Your task to perform on an android device: Open settings Image 0: 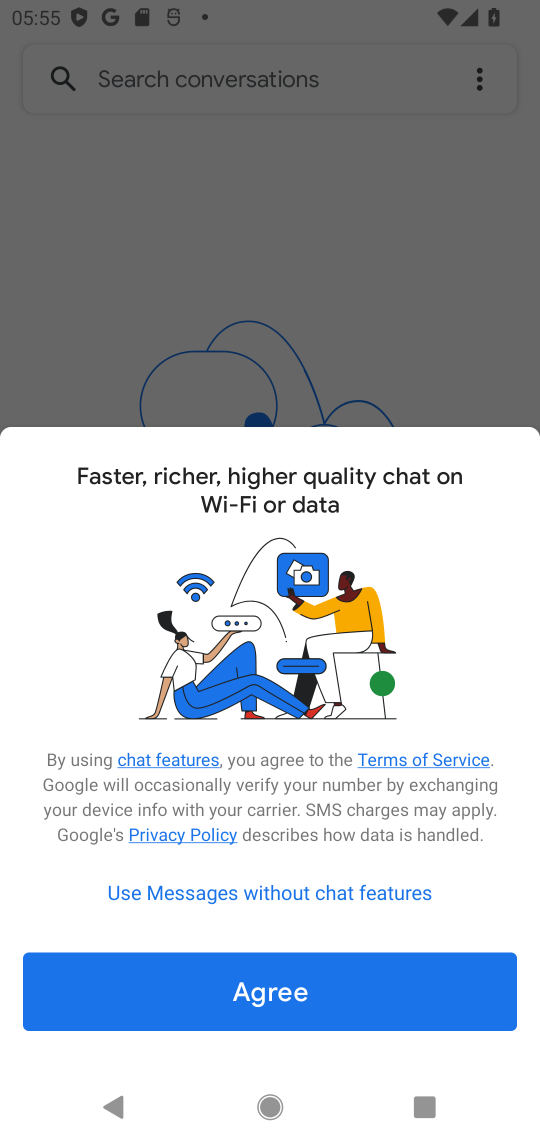
Step 0: press home button
Your task to perform on an android device: Open settings Image 1: 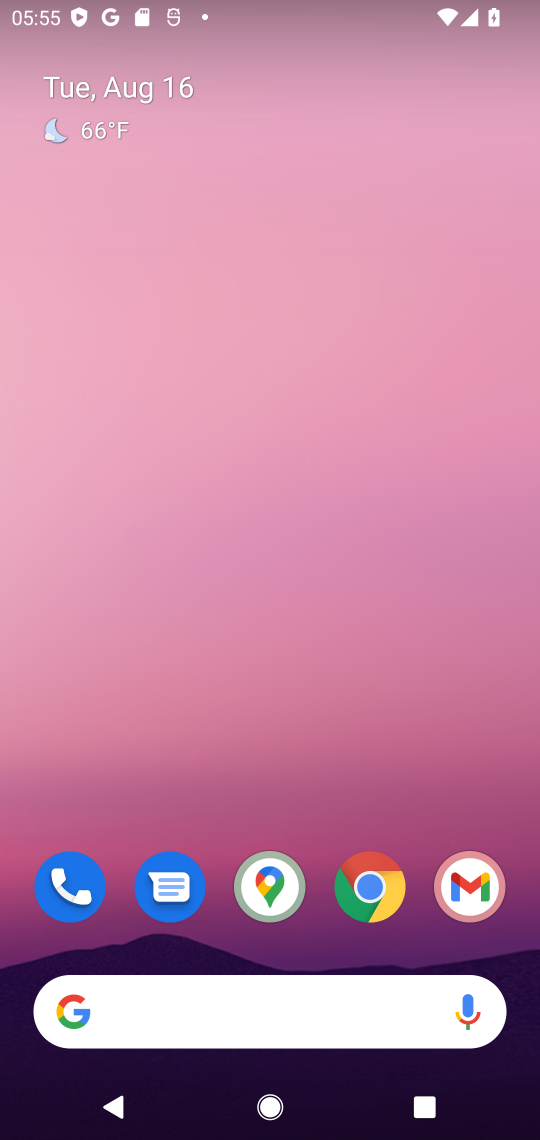
Step 1: drag from (332, 749) to (355, 9)
Your task to perform on an android device: Open settings Image 2: 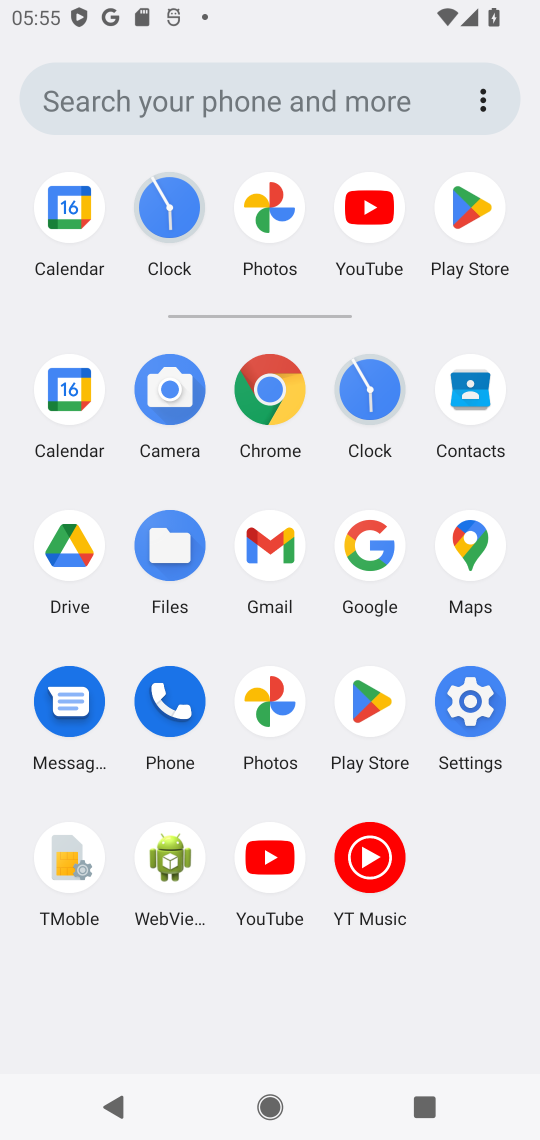
Step 2: click (477, 711)
Your task to perform on an android device: Open settings Image 3: 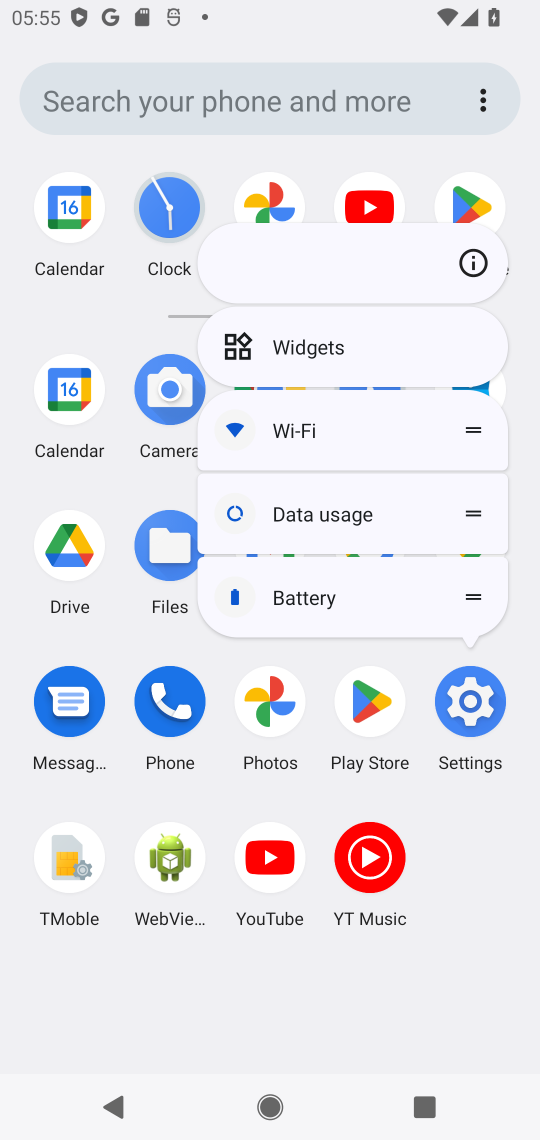
Step 3: click (475, 710)
Your task to perform on an android device: Open settings Image 4: 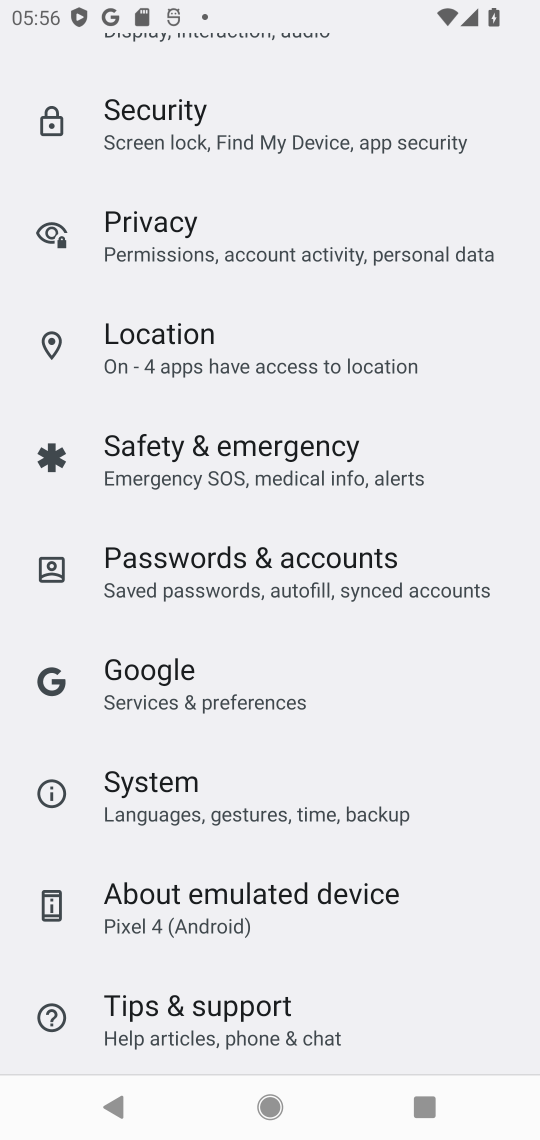
Step 4: task complete